Your task to perform on an android device: delete location history Image 0: 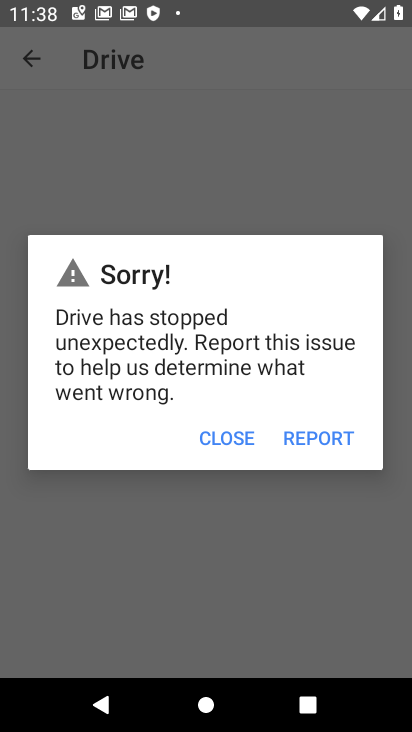
Step 0: press home button
Your task to perform on an android device: delete location history Image 1: 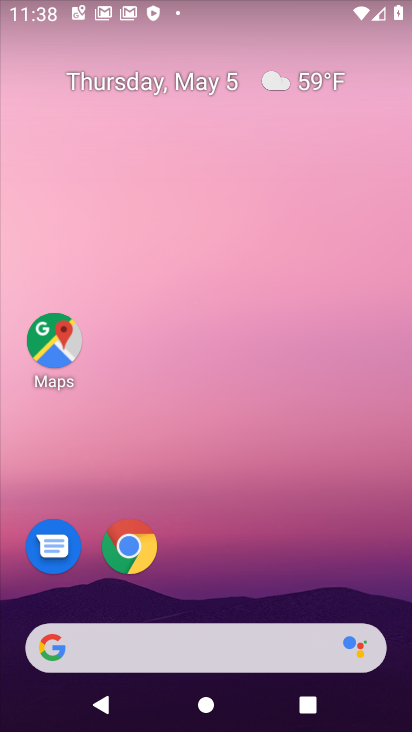
Step 1: click (61, 343)
Your task to perform on an android device: delete location history Image 2: 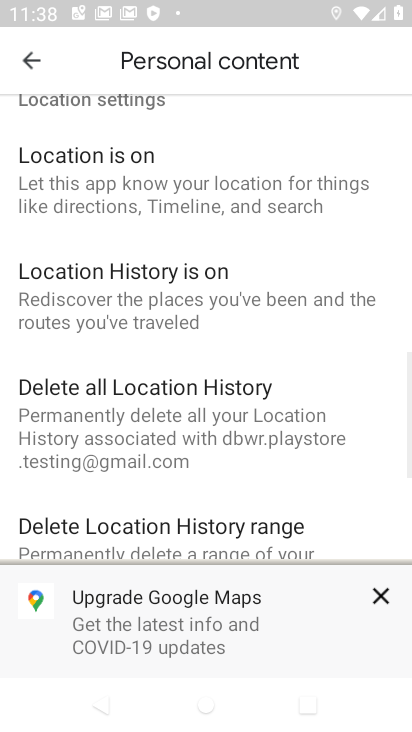
Step 2: click (177, 399)
Your task to perform on an android device: delete location history Image 3: 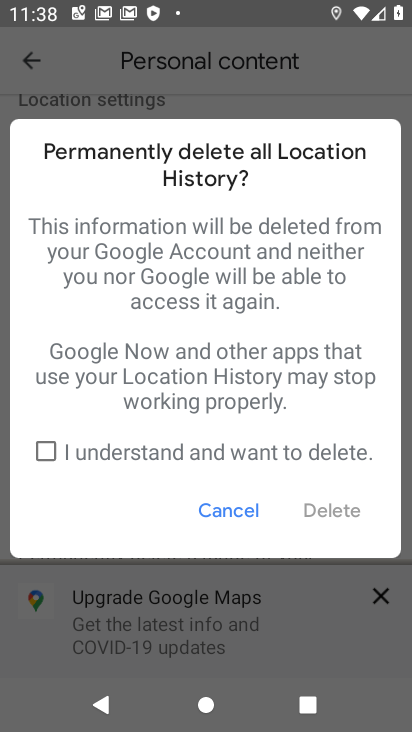
Step 3: click (44, 446)
Your task to perform on an android device: delete location history Image 4: 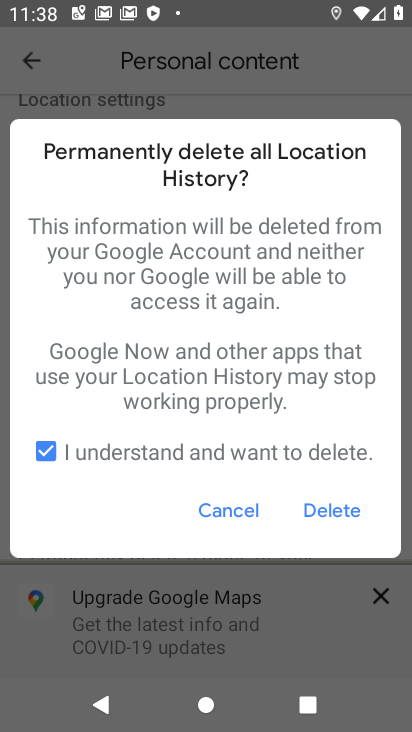
Step 4: click (322, 502)
Your task to perform on an android device: delete location history Image 5: 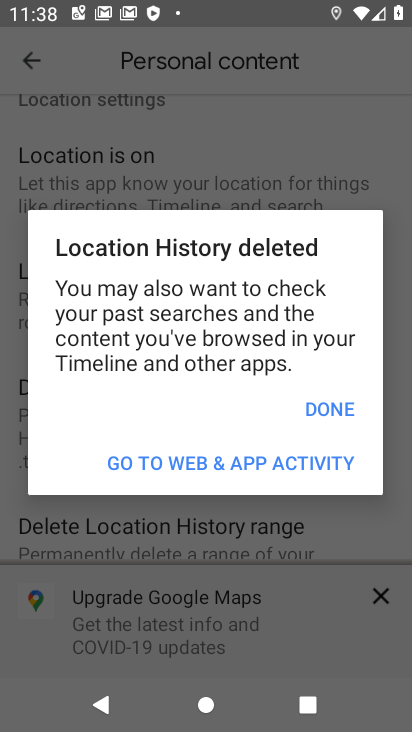
Step 5: click (341, 410)
Your task to perform on an android device: delete location history Image 6: 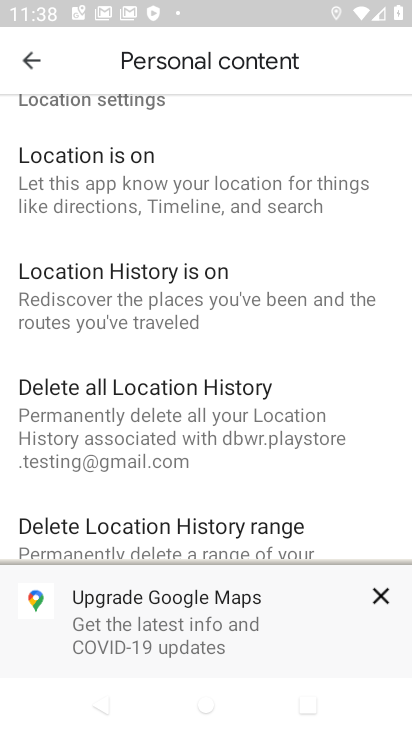
Step 6: task complete